Your task to perform on an android device: check battery use Image 0: 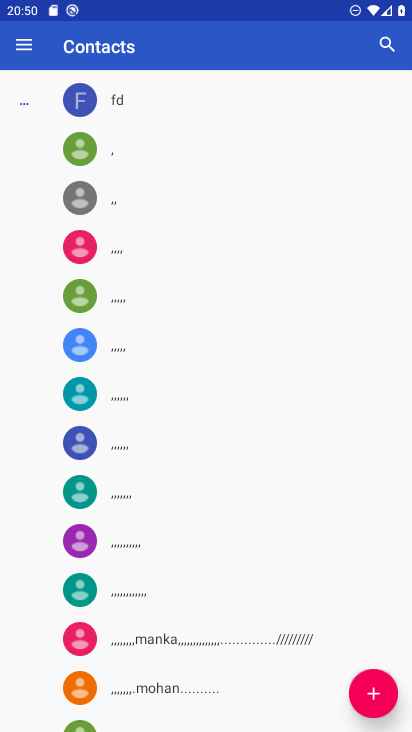
Step 0: press home button
Your task to perform on an android device: check battery use Image 1: 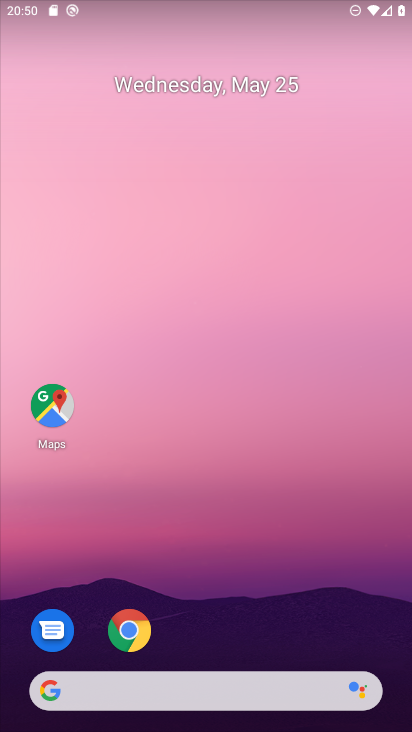
Step 1: drag from (219, 634) to (321, 91)
Your task to perform on an android device: check battery use Image 2: 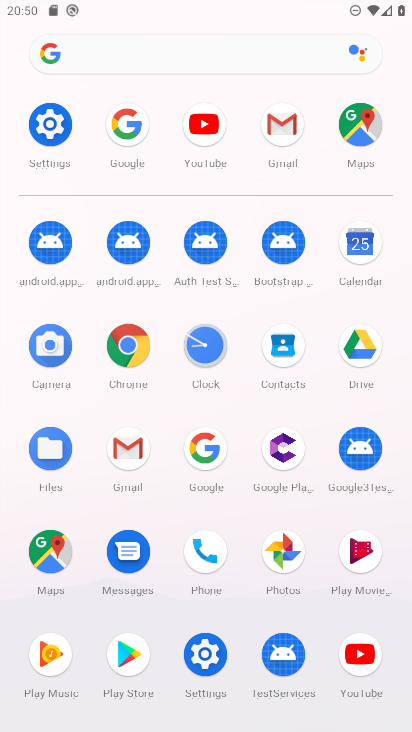
Step 2: click (201, 658)
Your task to perform on an android device: check battery use Image 3: 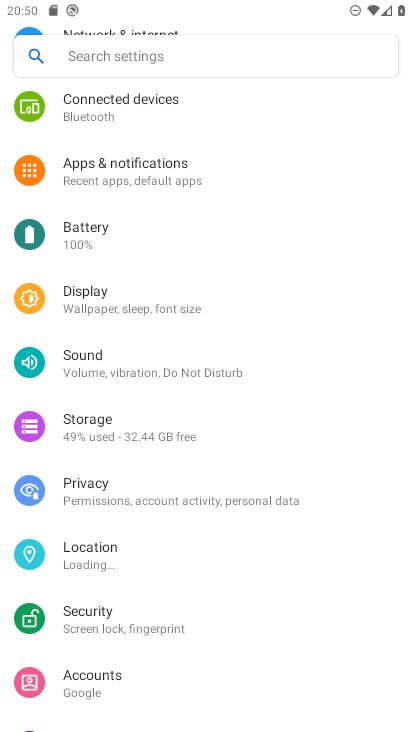
Step 3: click (108, 228)
Your task to perform on an android device: check battery use Image 4: 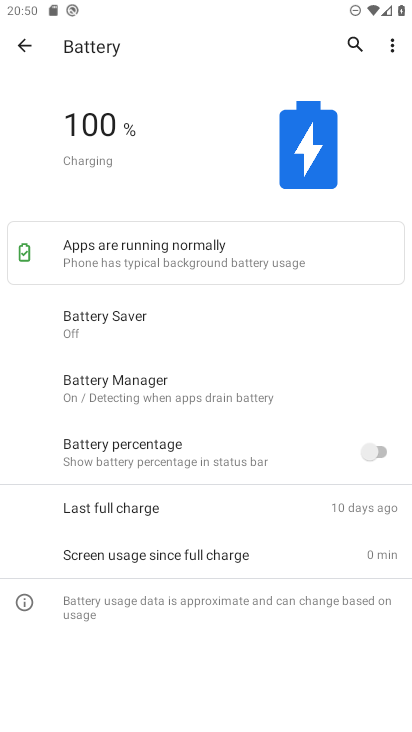
Step 4: click (387, 43)
Your task to perform on an android device: check battery use Image 5: 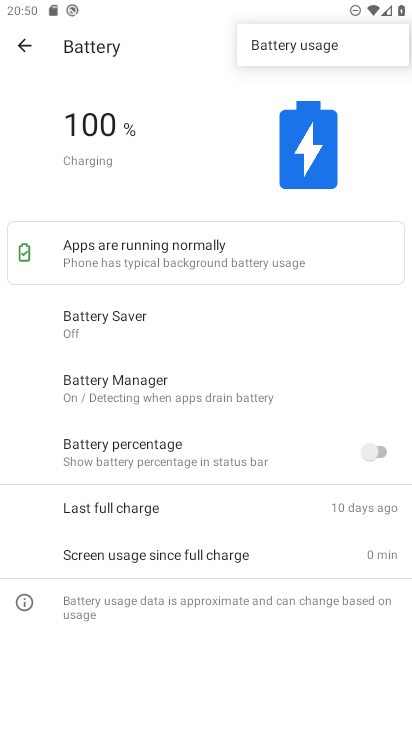
Step 5: click (267, 55)
Your task to perform on an android device: check battery use Image 6: 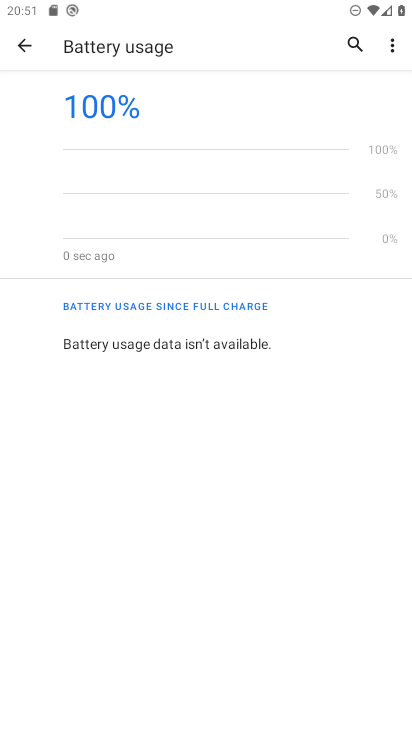
Step 6: task complete